Your task to perform on an android device: toggle javascript in the chrome app Image 0: 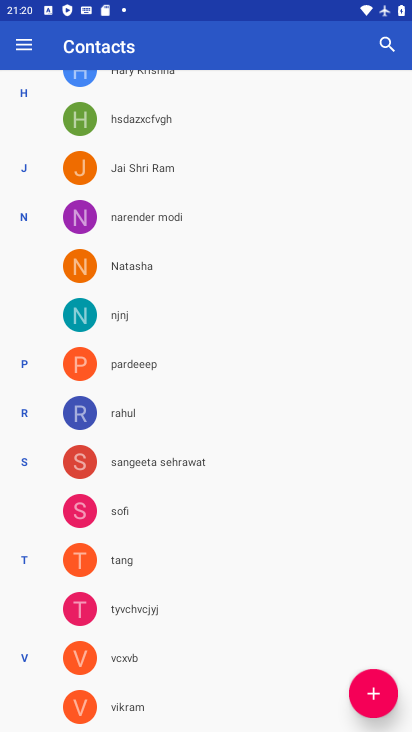
Step 0: press home button
Your task to perform on an android device: toggle javascript in the chrome app Image 1: 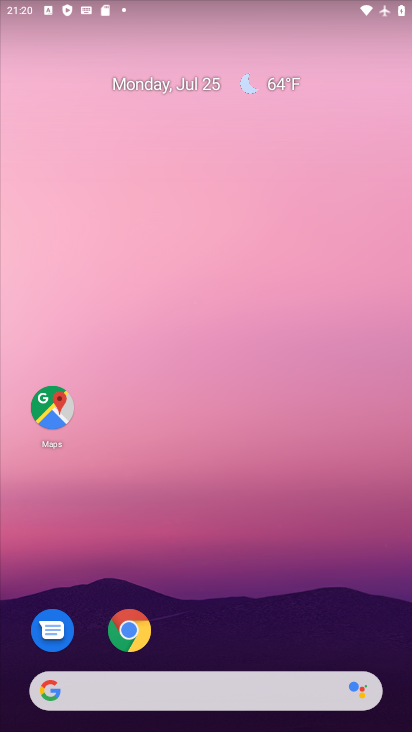
Step 1: click (131, 633)
Your task to perform on an android device: toggle javascript in the chrome app Image 2: 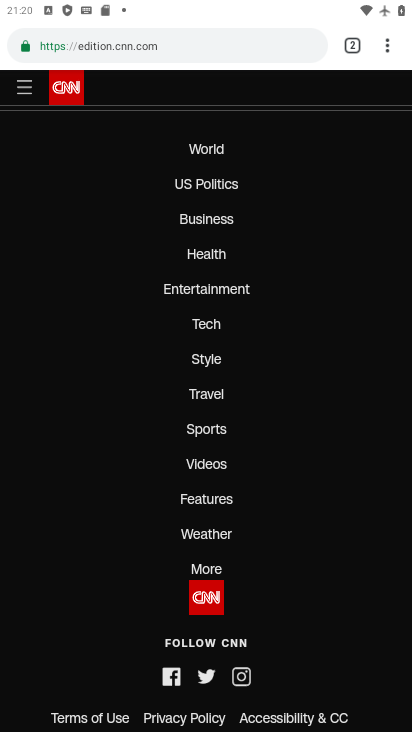
Step 2: click (387, 53)
Your task to perform on an android device: toggle javascript in the chrome app Image 3: 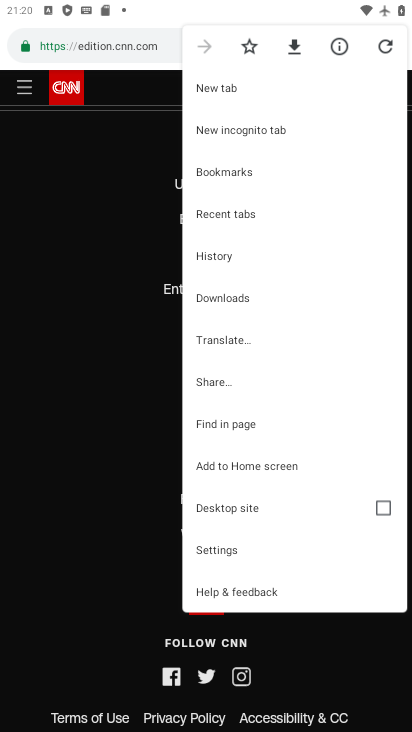
Step 3: click (228, 547)
Your task to perform on an android device: toggle javascript in the chrome app Image 4: 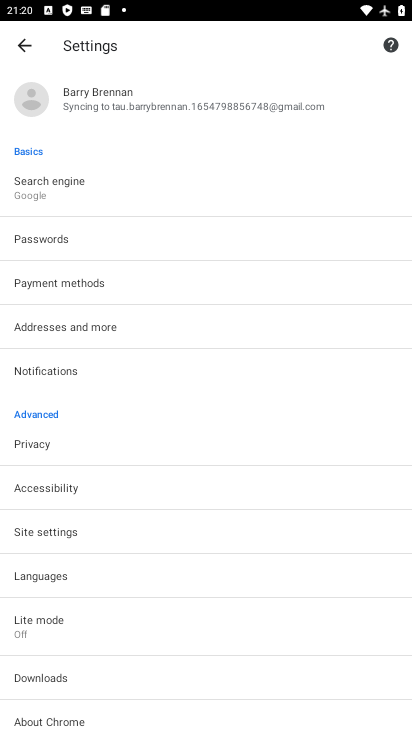
Step 4: click (36, 531)
Your task to perform on an android device: toggle javascript in the chrome app Image 5: 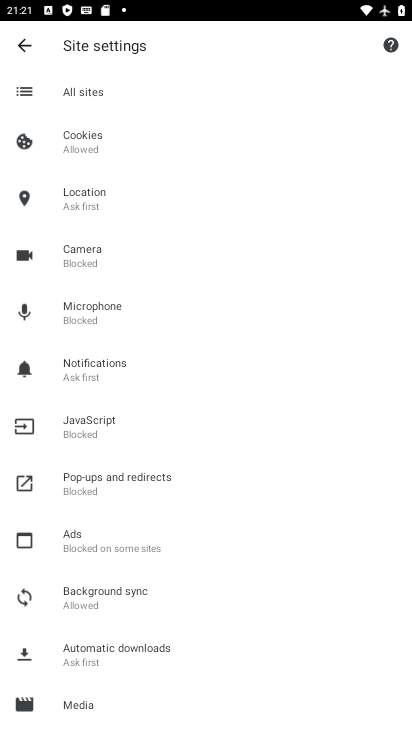
Step 5: click (79, 419)
Your task to perform on an android device: toggle javascript in the chrome app Image 6: 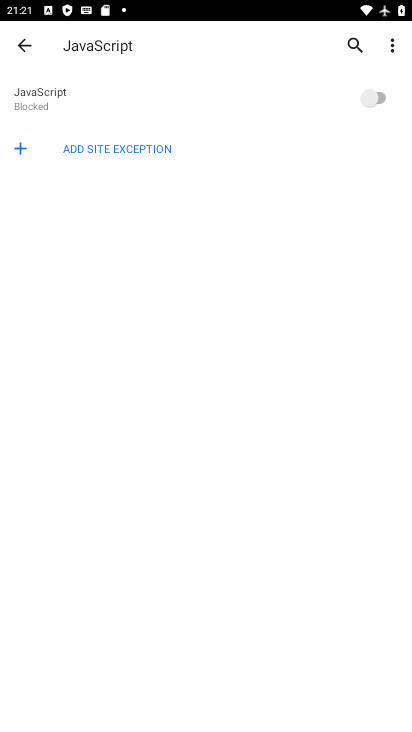
Step 6: click (382, 99)
Your task to perform on an android device: toggle javascript in the chrome app Image 7: 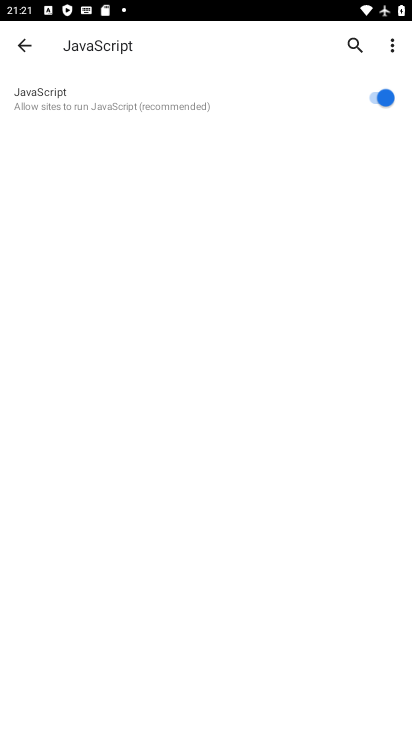
Step 7: task complete